Your task to perform on an android device: toggle data saver in the chrome app Image 0: 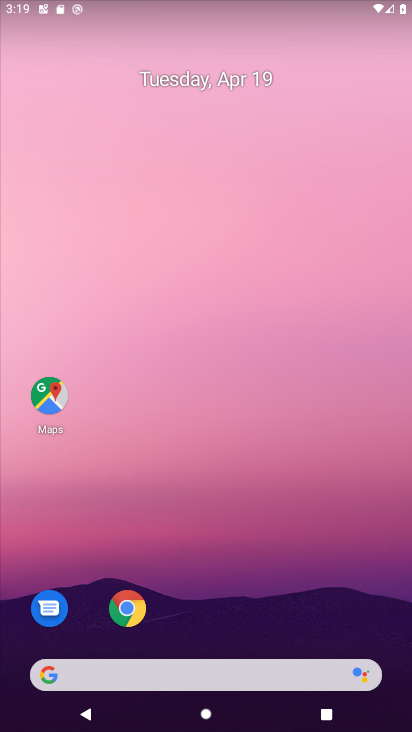
Step 0: drag from (247, 593) to (232, 107)
Your task to perform on an android device: toggle data saver in the chrome app Image 1: 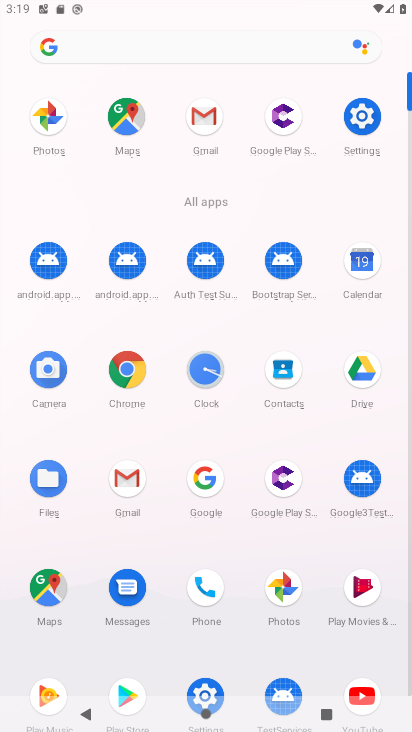
Step 1: click (131, 367)
Your task to perform on an android device: toggle data saver in the chrome app Image 2: 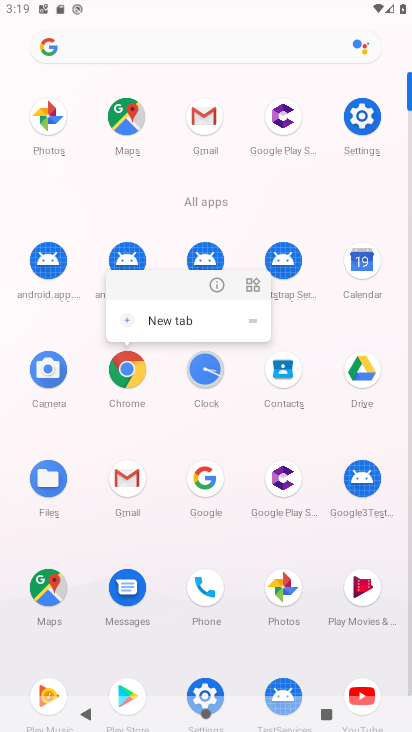
Step 2: click (128, 367)
Your task to perform on an android device: toggle data saver in the chrome app Image 3: 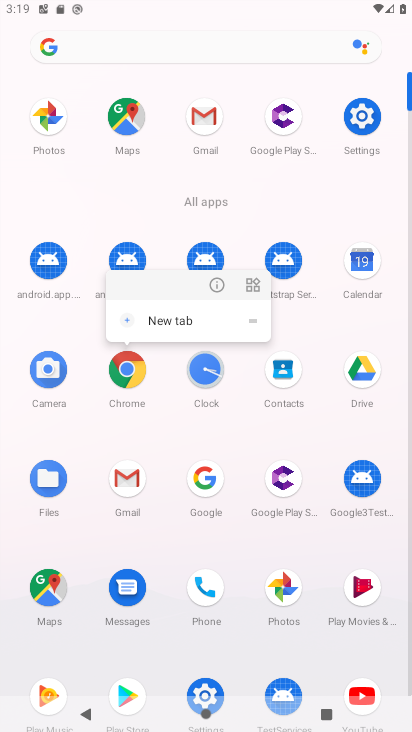
Step 3: click (119, 376)
Your task to perform on an android device: toggle data saver in the chrome app Image 4: 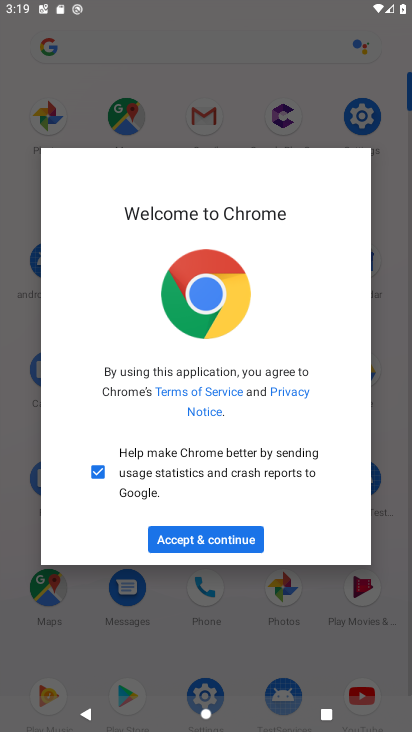
Step 4: click (216, 539)
Your task to perform on an android device: toggle data saver in the chrome app Image 5: 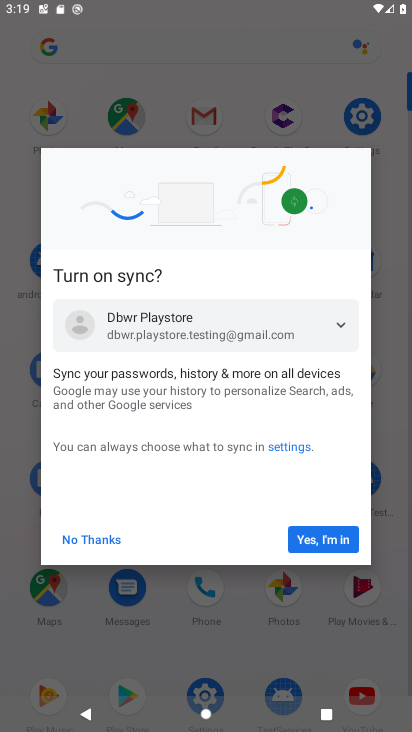
Step 5: click (347, 538)
Your task to perform on an android device: toggle data saver in the chrome app Image 6: 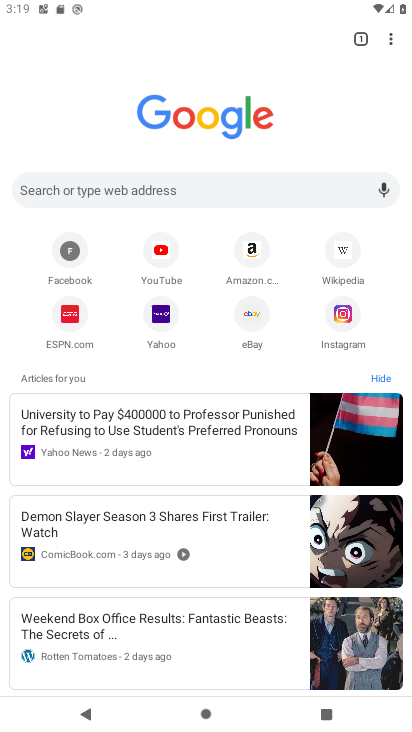
Step 6: drag from (390, 36) to (235, 325)
Your task to perform on an android device: toggle data saver in the chrome app Image 7: 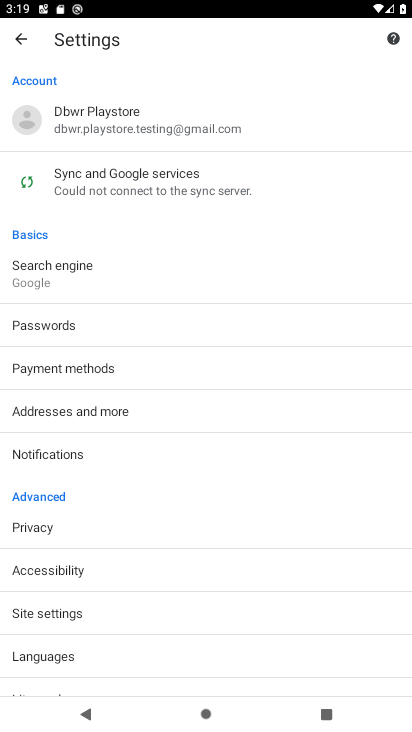
Step 7: drag from (221, 620) to (273, 247)
Your task to perform on an android device: toggle data saver in the chrome app Image 8: 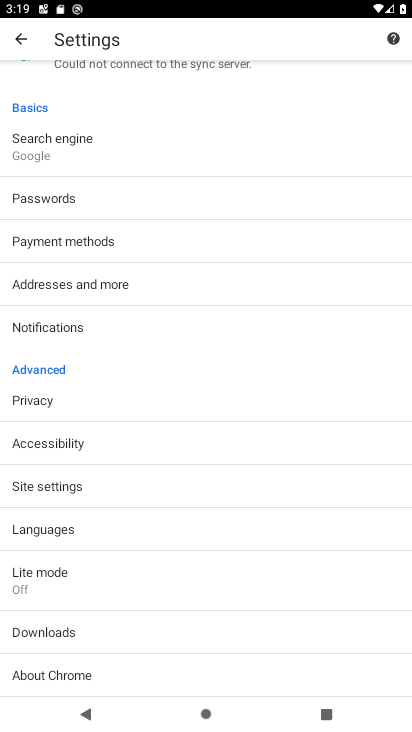
Step 8: click (53, 573)
Your task to perform on an android device: toggle data saver in the chrome app Image 9: 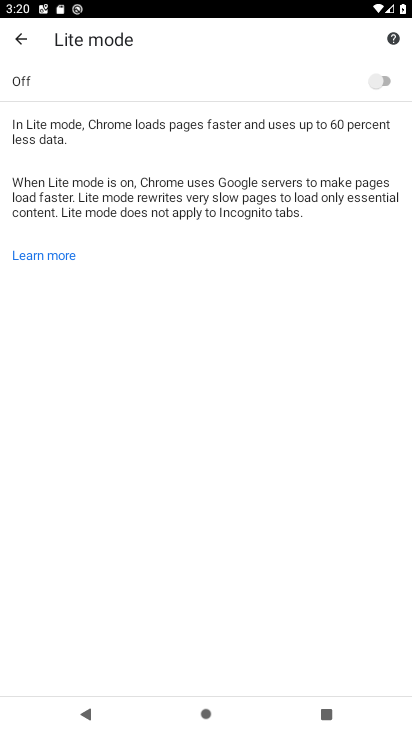
Step 9: click (347, 78)
Your task to perform on an android device: toggle data saver in the chrome app Image 10: 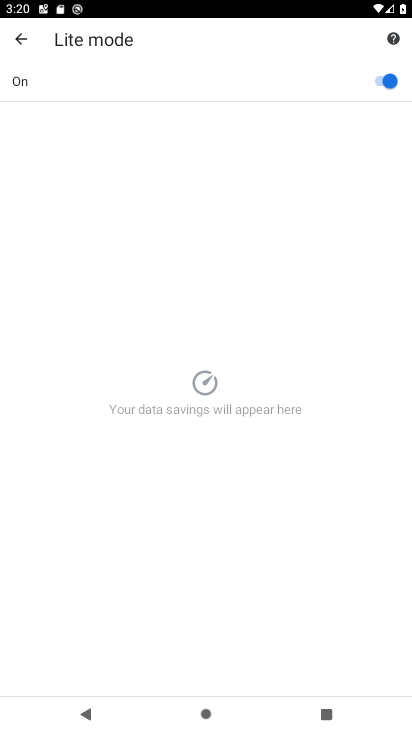
Step 10: task complete